Your task to perform on an android device: Open Wikipedia Image 0: 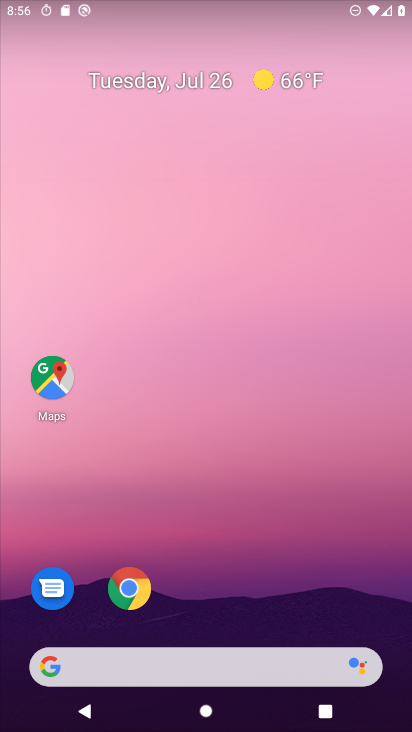
Step 0: click (131, 582)
Your task to perform on an android device: Open Wikipedia Image 1: 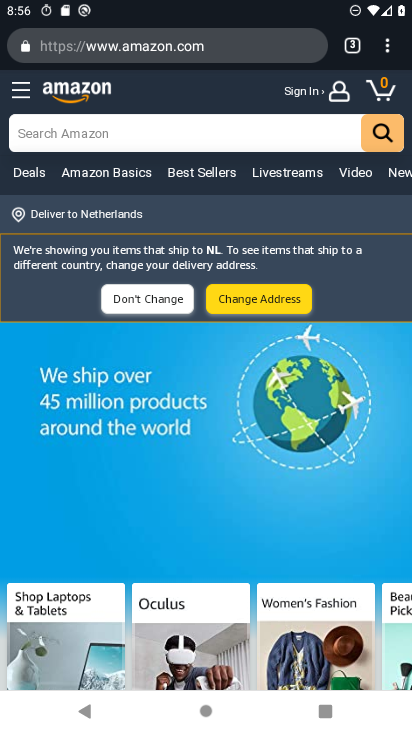
Step 1: click (388, 51)
Your task to perform on an android device: Open Wikipedia Image 2: 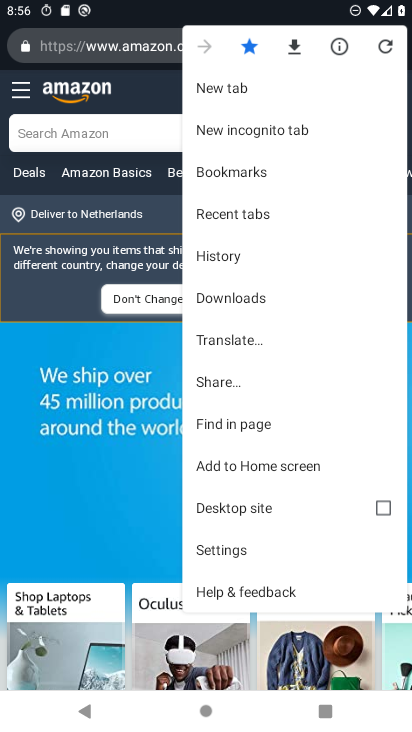
Step 2: click (232, 83)
Your task to perform on an android device: Open Wikipedia Image 3: 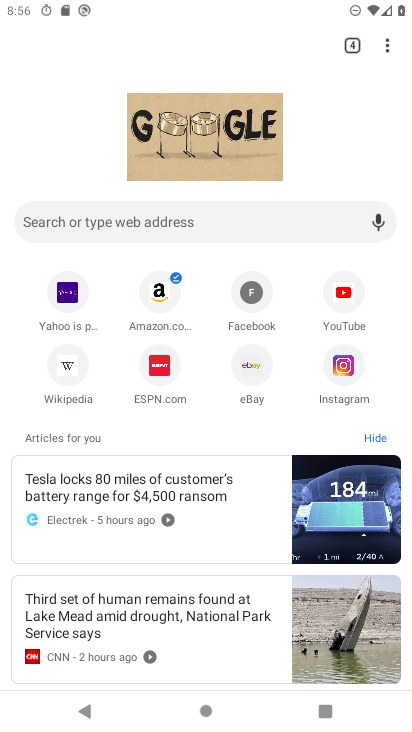
Step 3: click (66, 364)
Your task to perform on an android device: Open Wikipedia Image 4: 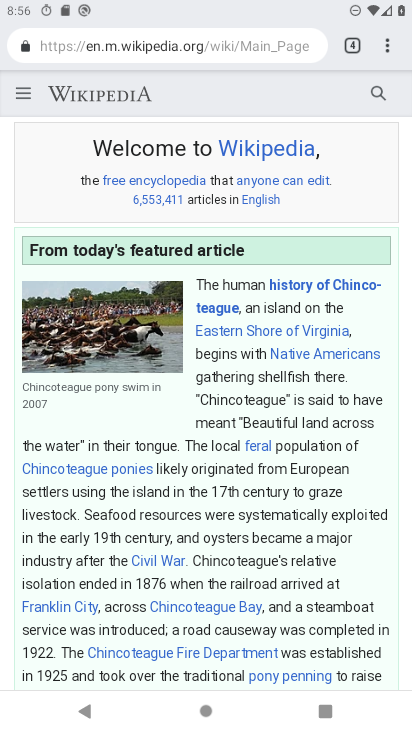
Step 4: task complete